Your task to perform on an android device: find which apps use the phone's location Image 0: 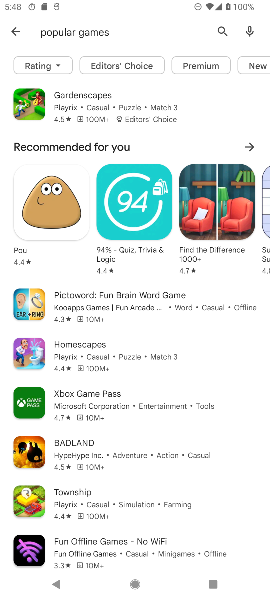
Step 0: press back button
Your task to perform on an android device: find which apps use the phone's location Image 1: 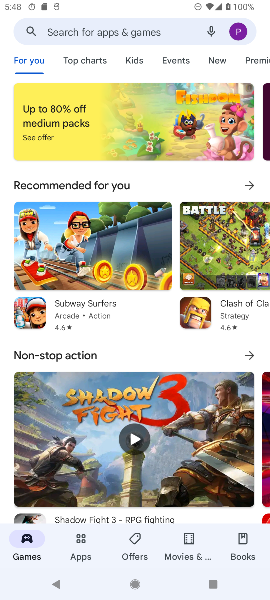
Step 1: press home button
Your task to perform on an android device: find which apps use the phone's location Image 2: 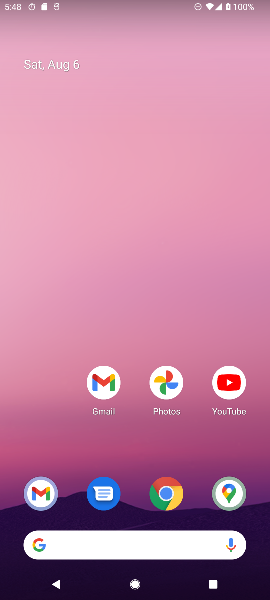
Step 2: drag from (159, 488) to (128, 118)
Your task to perform on an android device: find which apps use the phone's location Image 3: 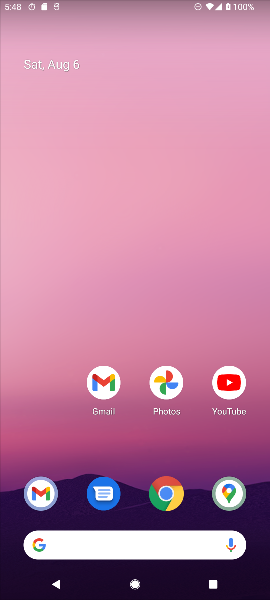
Step 3: drag from (144, 382) to (99, 11)
Your task to perform on an android device: find which apps use the phone's location Image 4: 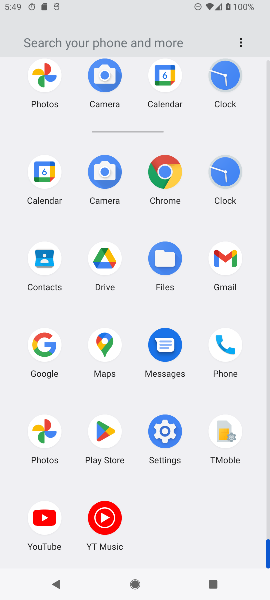
Step 4: click (164, 437)
Your task to perform on an android device: find which apps use the phone's location Image 5: 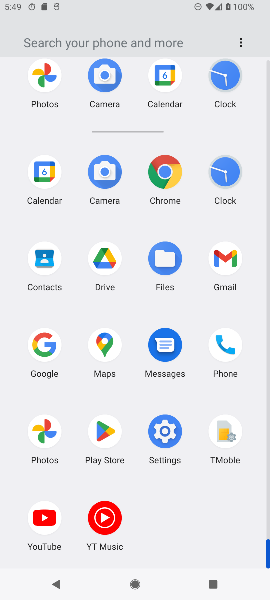
Step 5: click (163, 438)
Your task to perform on an android device: find which apps use the phone's location Image 6: 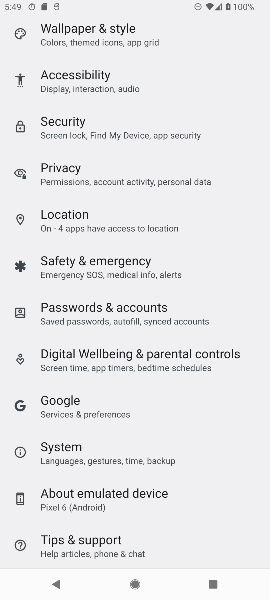
Step 6: click (163, 438)
Your task to perform on an android device: find which apps use the phone's location Image 7: 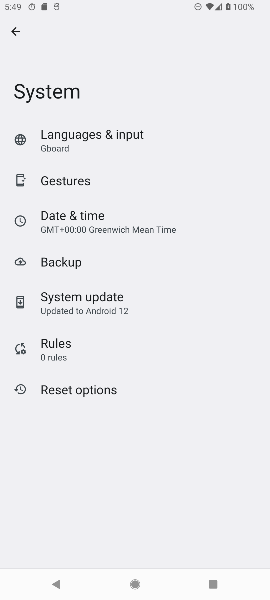
Step 7: click (9, 42)
Your task to perform on an android device: find which apps use the phone's location Image 8: 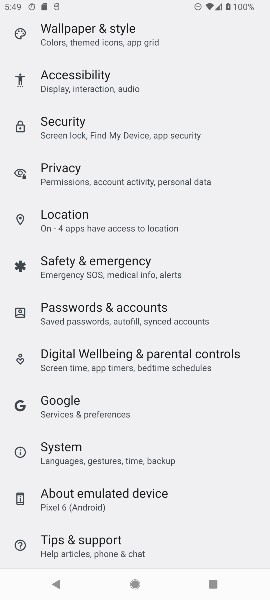
Step 8: click (60, 218)
Your task to perform on an android device: find which apps use the phone's location Image 9: 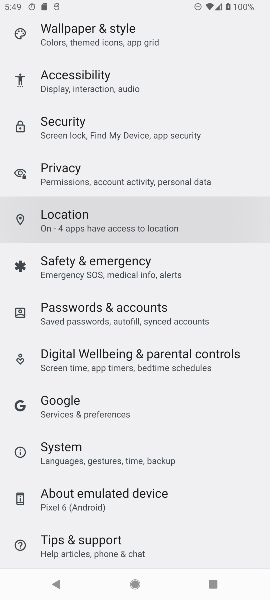
Step 9: click (60, 218)
Your task to perform on an android device: find which apps use the phone's location Image 10: 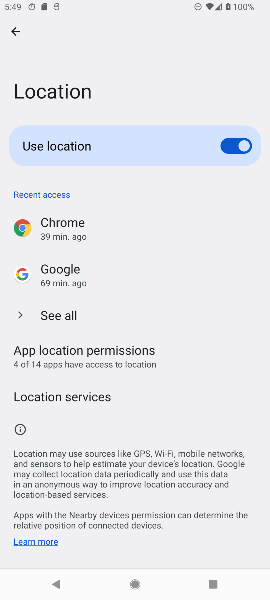
Step 10: click (83, 357)
Your task to perform on an android device: find which apps use the phone's location Image 11: 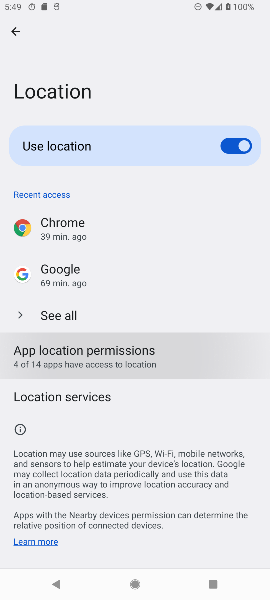
Step 11: click (83, 357)
Your task to perform on an android device: find which apps use the phone's location Image 12: 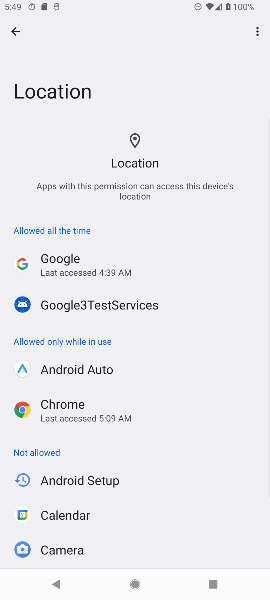
Step 12: drag from (95, 442) to (62, 167)
Your task to perform on an android device: find which apps use the phone's location Image 13: 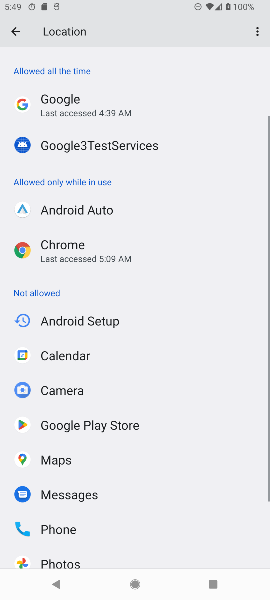
Step 13: drag from (99, 398) to (111, 255)
Your task to perform on an android device: find which apps use the phone's location Image 14: 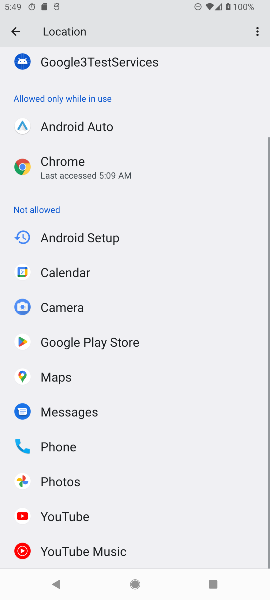
Step 14: drag from (107, 516) to (101, 348)
Your task to perform on an android device: find which apps use the phone's location Image 15: 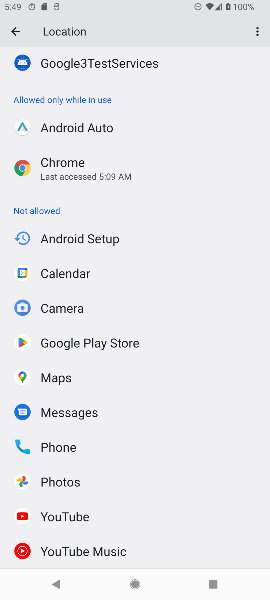
Step 15: drag from (96, 375) to (93, 185)
Your task to perform on an android device: find which apps use the phone's location Image 16: 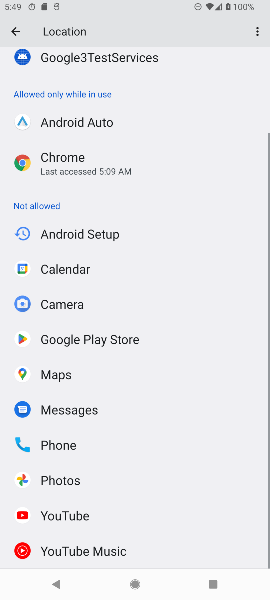
Step 16: drag from (73, 400) to (85, 207)
Your task to perform on an android device: find which apps use the phone's location Image 17: 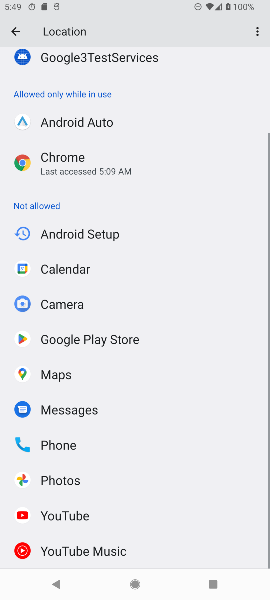
Step 17: drag from (106, 392) to (106, 204)
Your task to perform on an android device: find which apps use the phone's location Image 18: 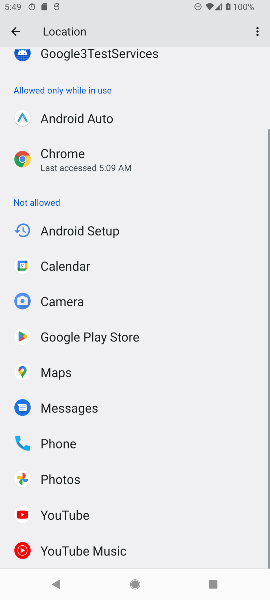
Step 18: drag from (103, 339) to (72, 147)
Your task to perform on an android device: find which apps use the phone's location Image 19: 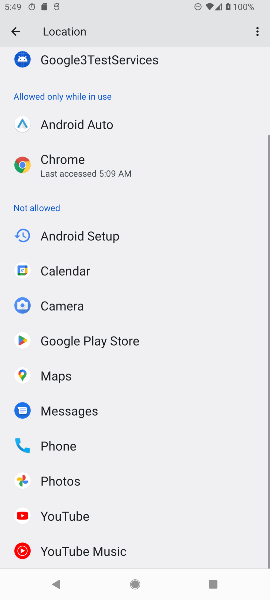
Step 19: drag from (114, 426) to (93, 190)
Your task to perform on an android device: find which apps use the phone's location Image 20: 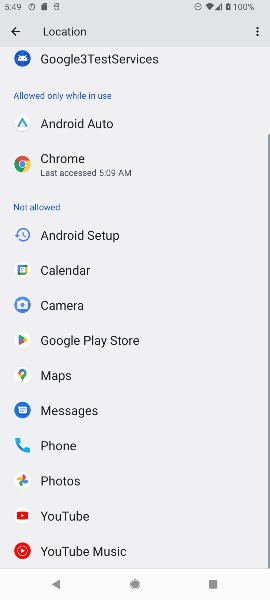
Step 20: drag from (126, 362) to (121, 165)
Your task to perform on an android device: find which apps use the phone's location Image 21: 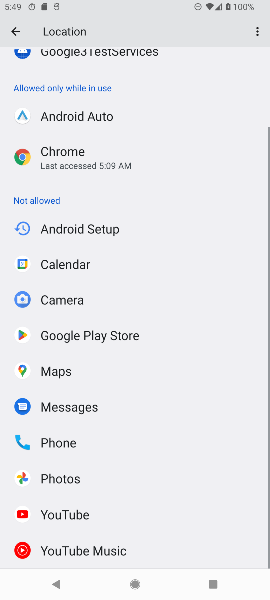
Step 21: click (82, 74)
Your task to perform on an android device: find which apps use the phone's location Image 22: 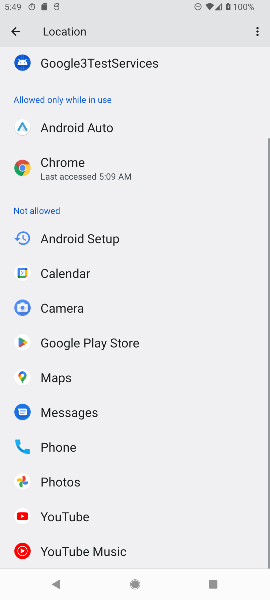
Step 22: task complete